Your task to perform on an android device: refresh tabs in the chrome app Image 0: 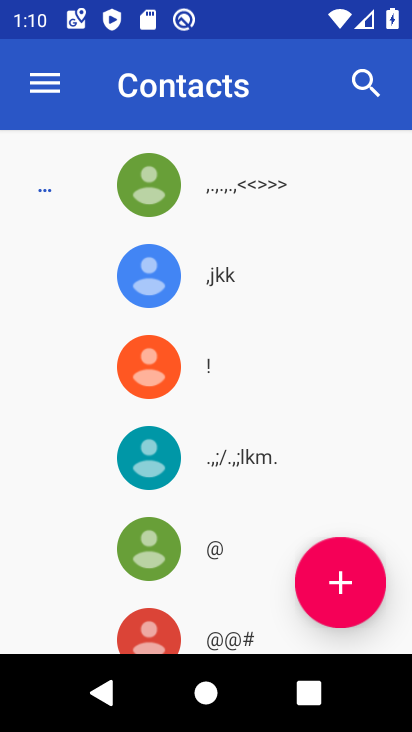
Step 0: press back button
Your task to perform on an android device: refresh tabs in the chrome app Image 1: 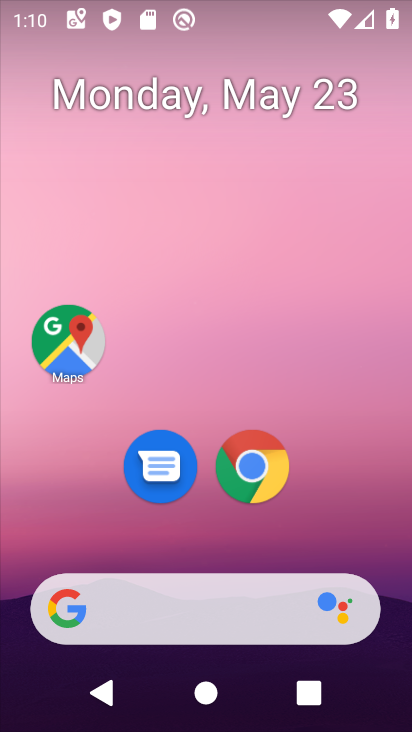
Step 1: click (256, 468)
Your task to perform on an android device: refresh tabs in the chrome app Image 2: 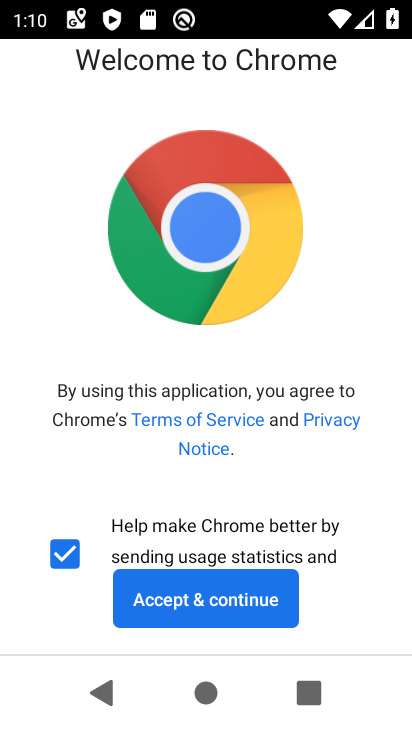
Step 2: click (204, 589)
Your task to perform on an android device: refresh tabs in the chrome app Image 3: 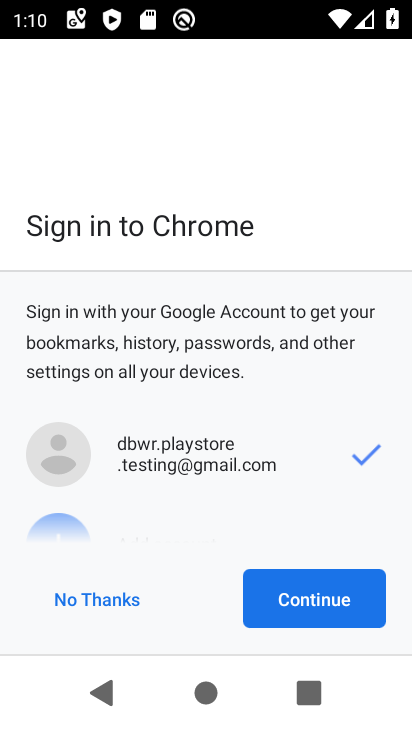
Step 3: click (330, 605)
Your task to perform on an android device: refresh tabs in the chrome app Image 4: 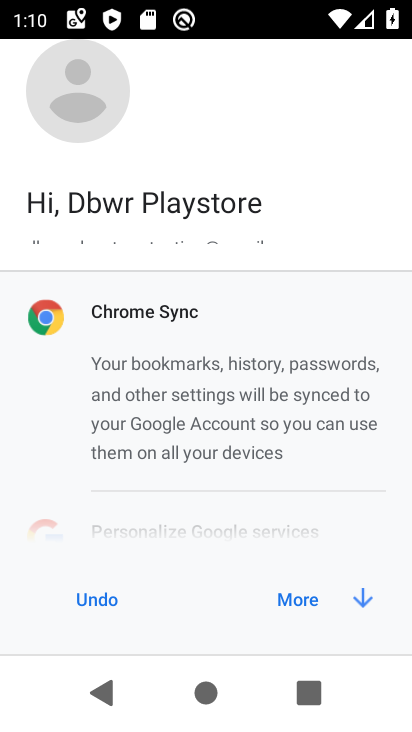
Step 4: click (315, 604)
Your task to perform on an android device: refresh tabs in the chrome app Image 5: 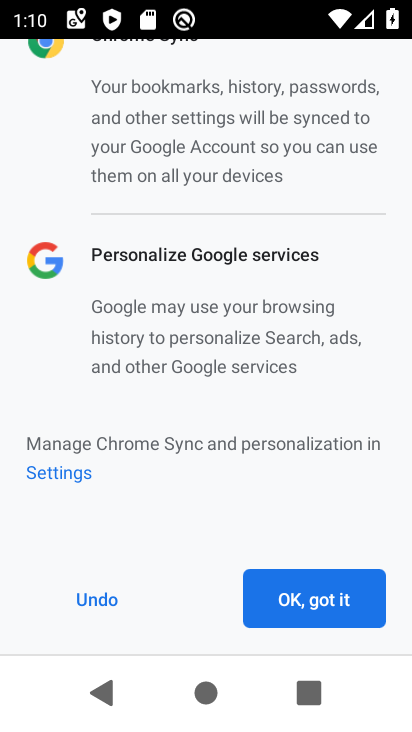
Step 5: click (303, 596)
Your task to perform on an android device: refresh tabs in the chrome app Image 6: 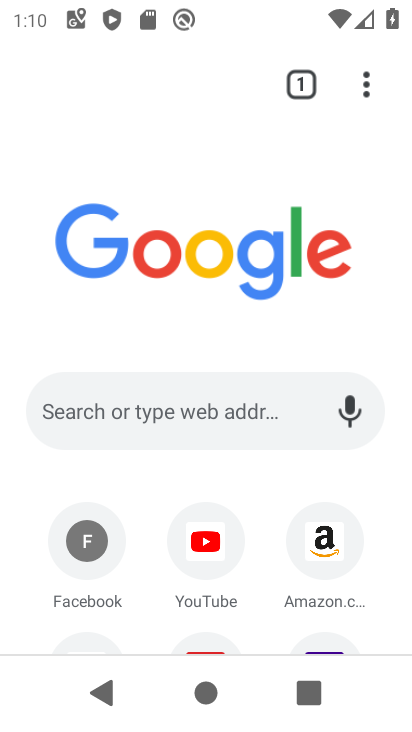
Step 6: click (365, 82)
Your task to perform on an android device: refresh tabs in the chrome app Image 7: 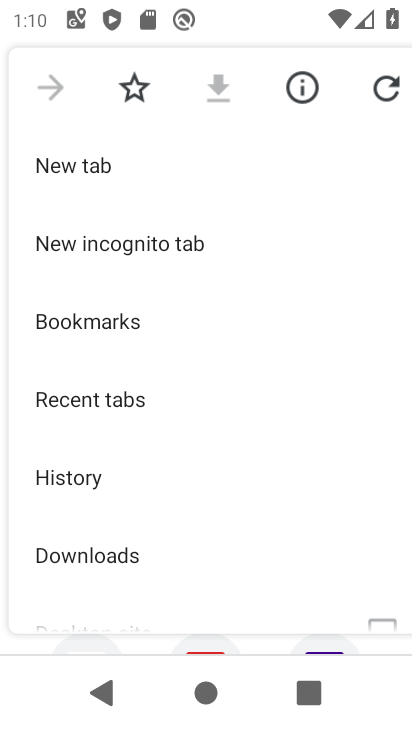
Step 7: click (390, 88)
Your task to perform on an android device: refresh tabs in the chrome app Image 8: 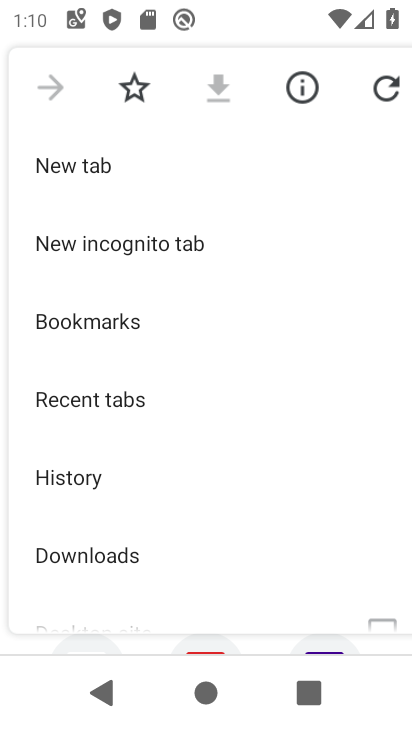
Step 8: task complete